Your task to perform on an android device: open chrome and create a bookmark for the current page Image 0: 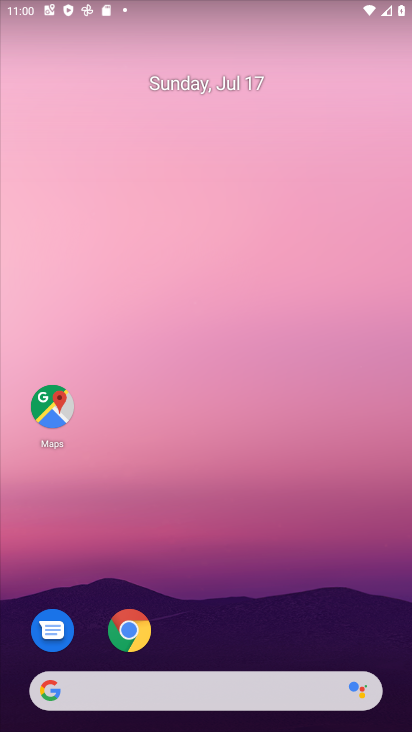
Step 0: click (157, 620)
Your task to perform on an android device: open chrome and create a bookmark for the current page Image 1: 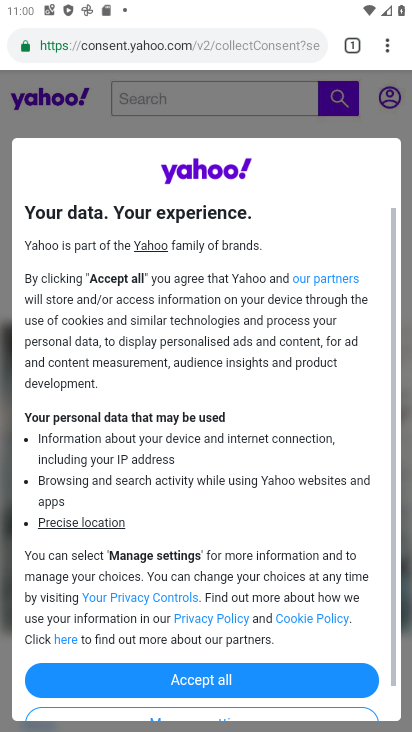
Step 1: click (379, 51)
Your task to perform on an android device: open chrome and create a bookmark for the current page Image 2: 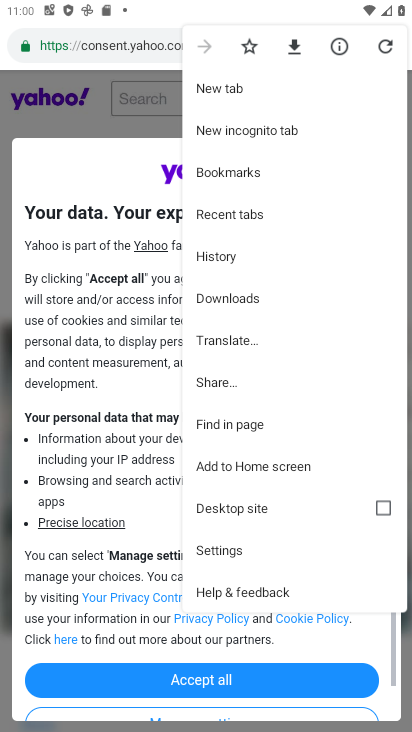
Step 2: click (239, 49)
Your task to perform on an android device: open chrome and create a bookmark for the current page Image 3: 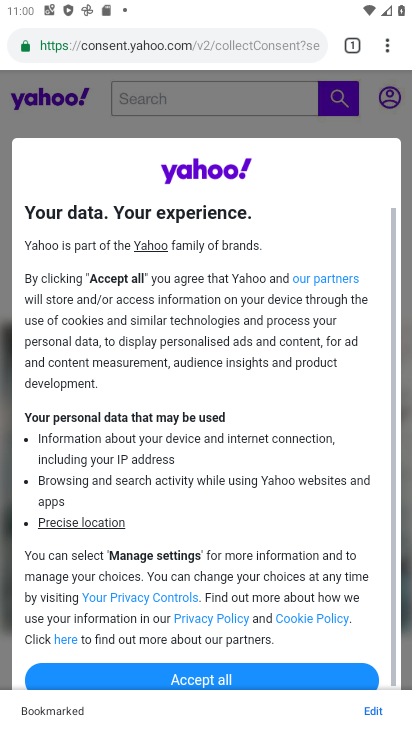
Step 3: task complete